Your task to perform on an android device: snooze an email in the gmail app Image 0: 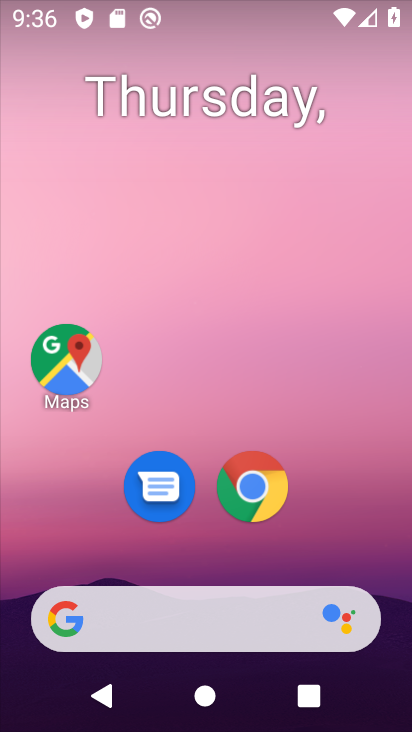
Step 0: drag from (186, 478) to (209, 114)
Your task to perform on an android device: snooze an email in the gmail app Image 1: 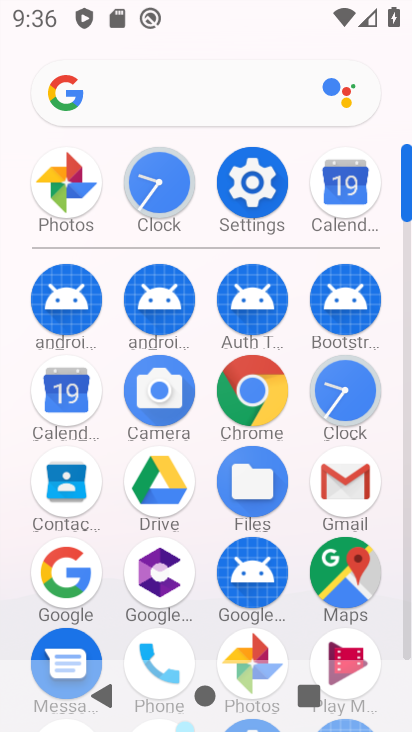
Step 1: click (339, 486)
Your task to perform on an android device: snooze an email in the gmail app Image 2: 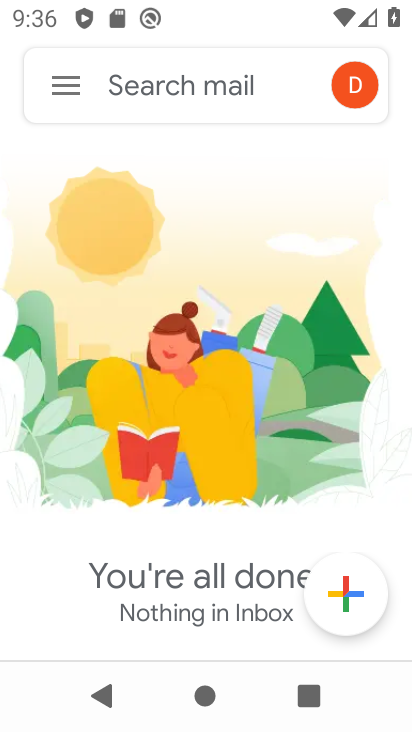
Step 2: click (71, 87)
Your task to perform on an android device: snooze an email in the gmail app Image 3: 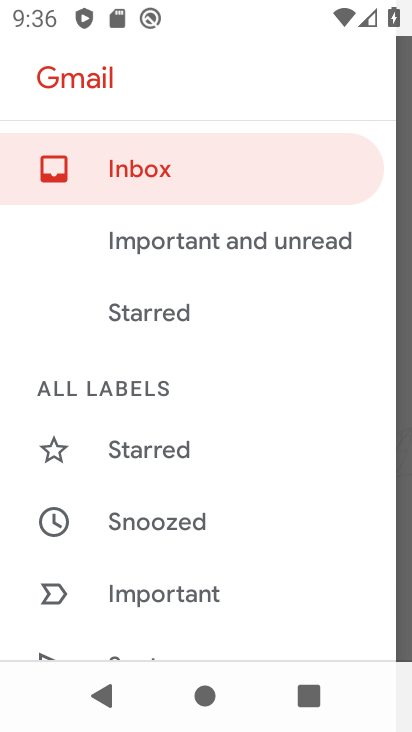
Step 3: drag from (161, 609) to (242, 196)
Your task to perform on an android device: snooze an email in the gmail app Image 4: 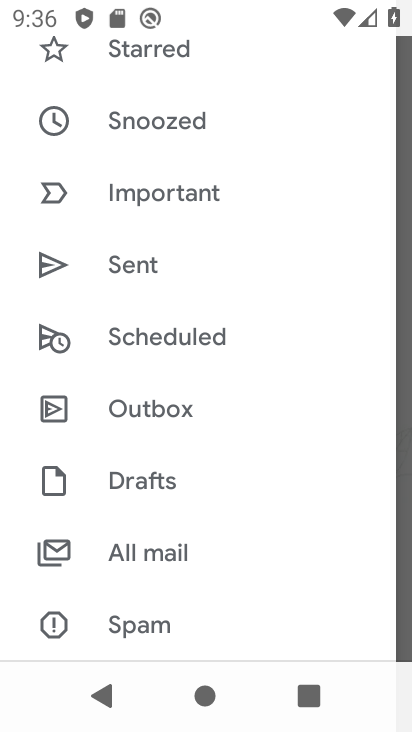
Step 4: click (163, 569)
Your task to perform on an android device: snooze an email in the gmail app Image 5: 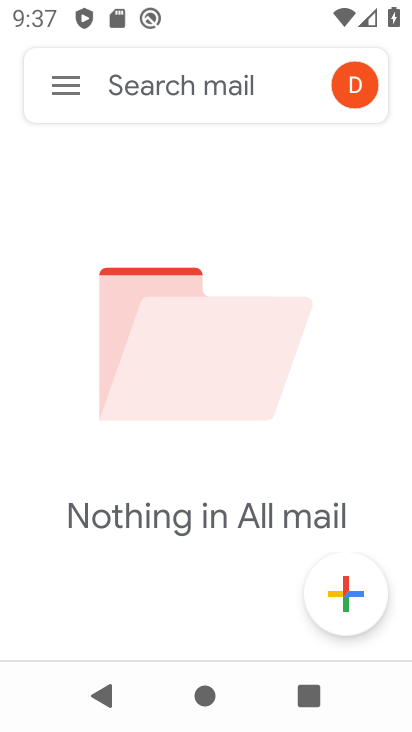
Step 5: task complete